Your task to perform on an android device: Open location settings Image 0: 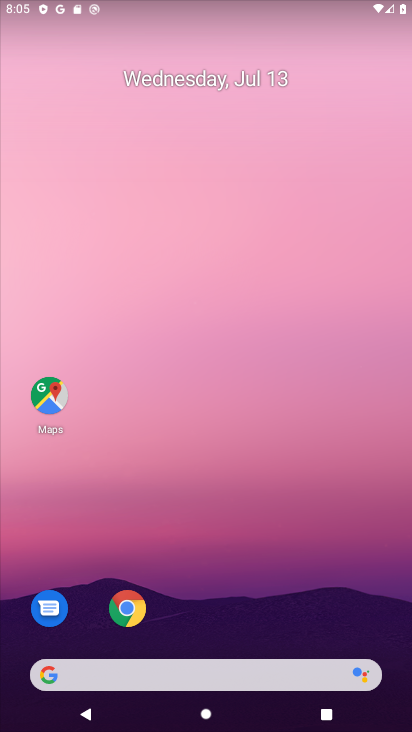
Step 0: press back button
Your task to perform on an android device: Open location settings Image 1: 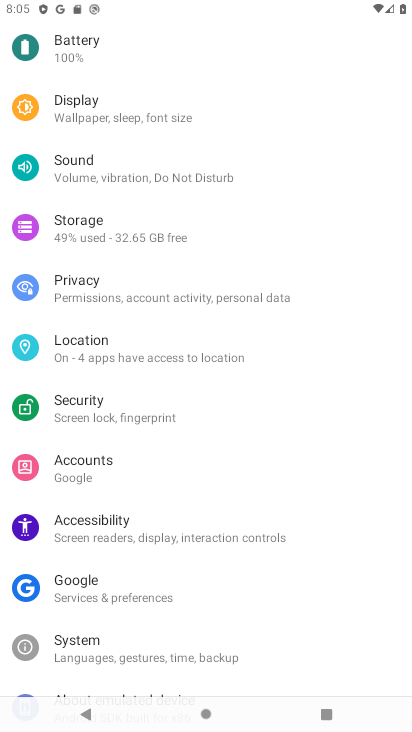
Step 1: drag from (385, 95) to (294, 371)
Your task to perform on an android device: Open location settings Image 2: 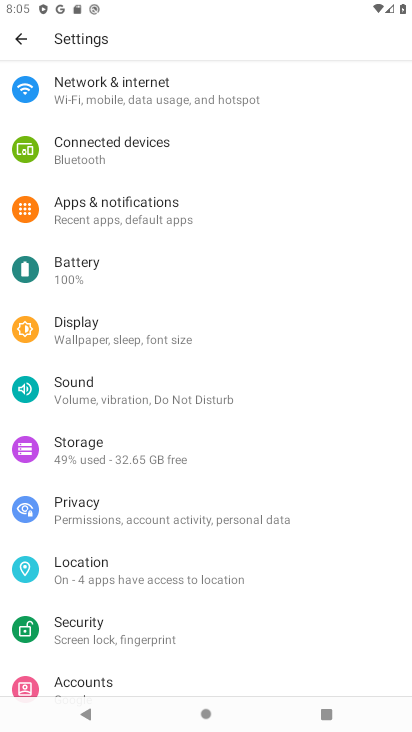
Step 2: click (86, 562)
Your task to perform on an android device: Open location settings Image 3: 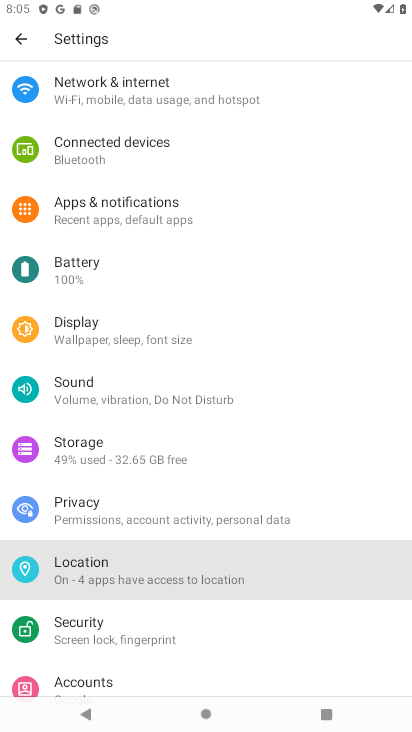
Step 3: click (88, 563)
Your task to perform on an android device: Open location settings Image 4: 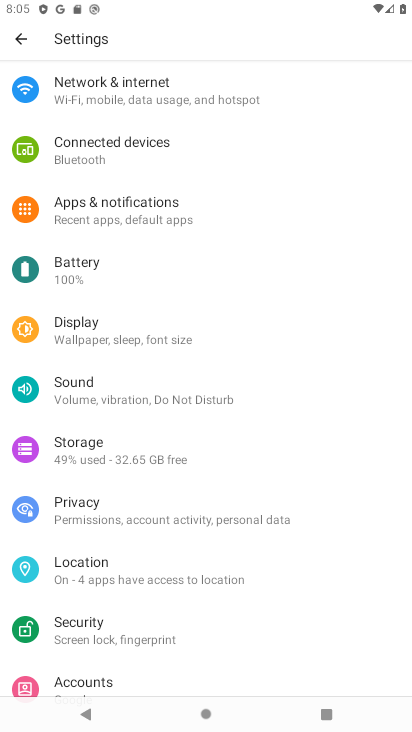
Step 4: click (89, 563)
Your task to perform on an android device: Open location settings Image 5: 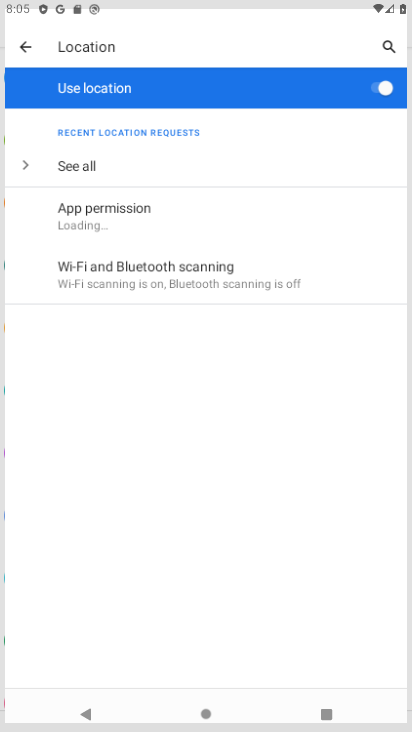
Step 5: click (92, 569)
Your task to perform on an android device: Open location settings Image 6: 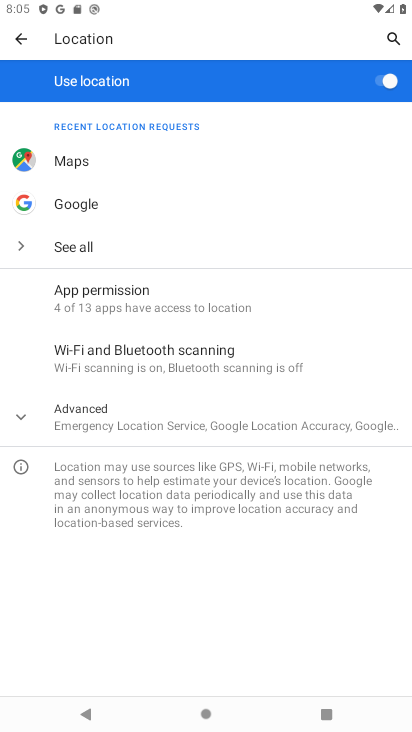
Step 6: task complete